Your task to perform on an android device: set the stopwatch Image 0: 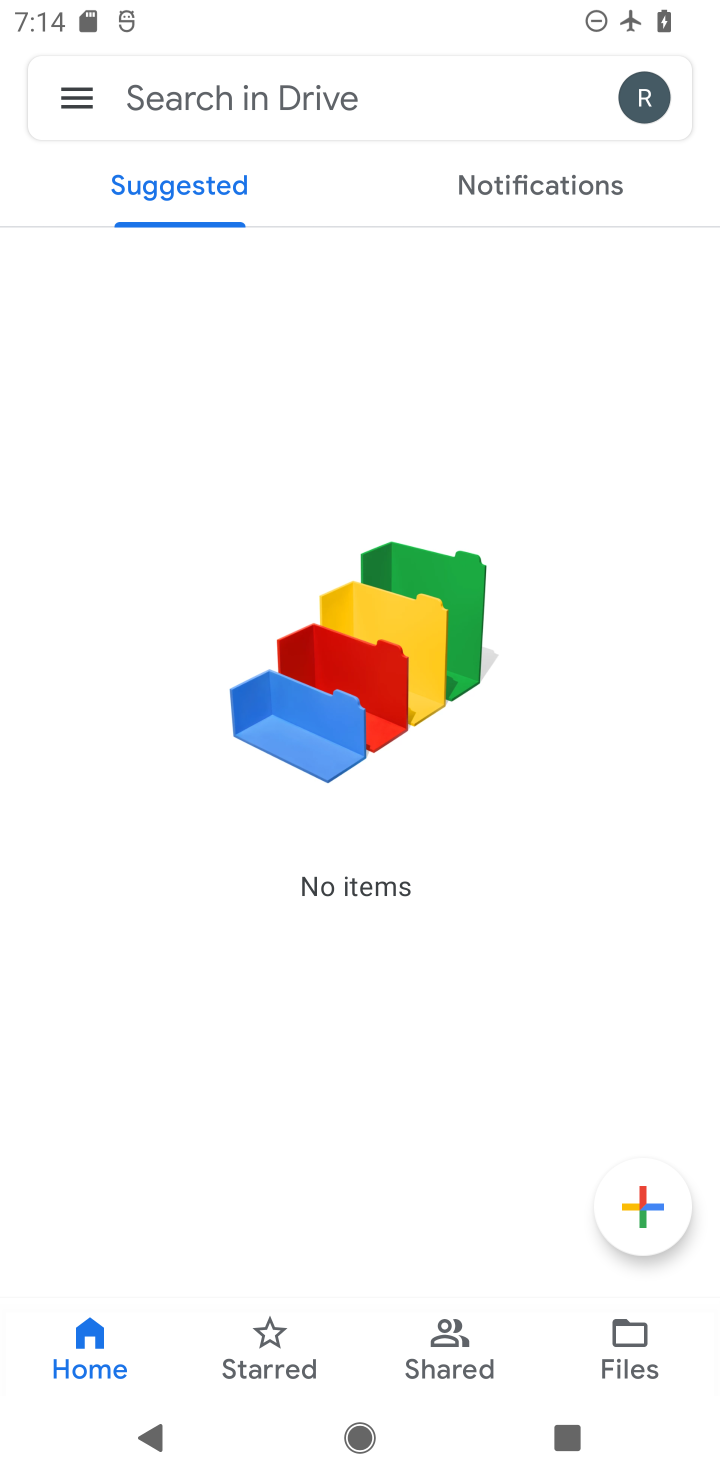
Step 0: press home button
Your task to perform on an android device: set the stopwatch Image 1: 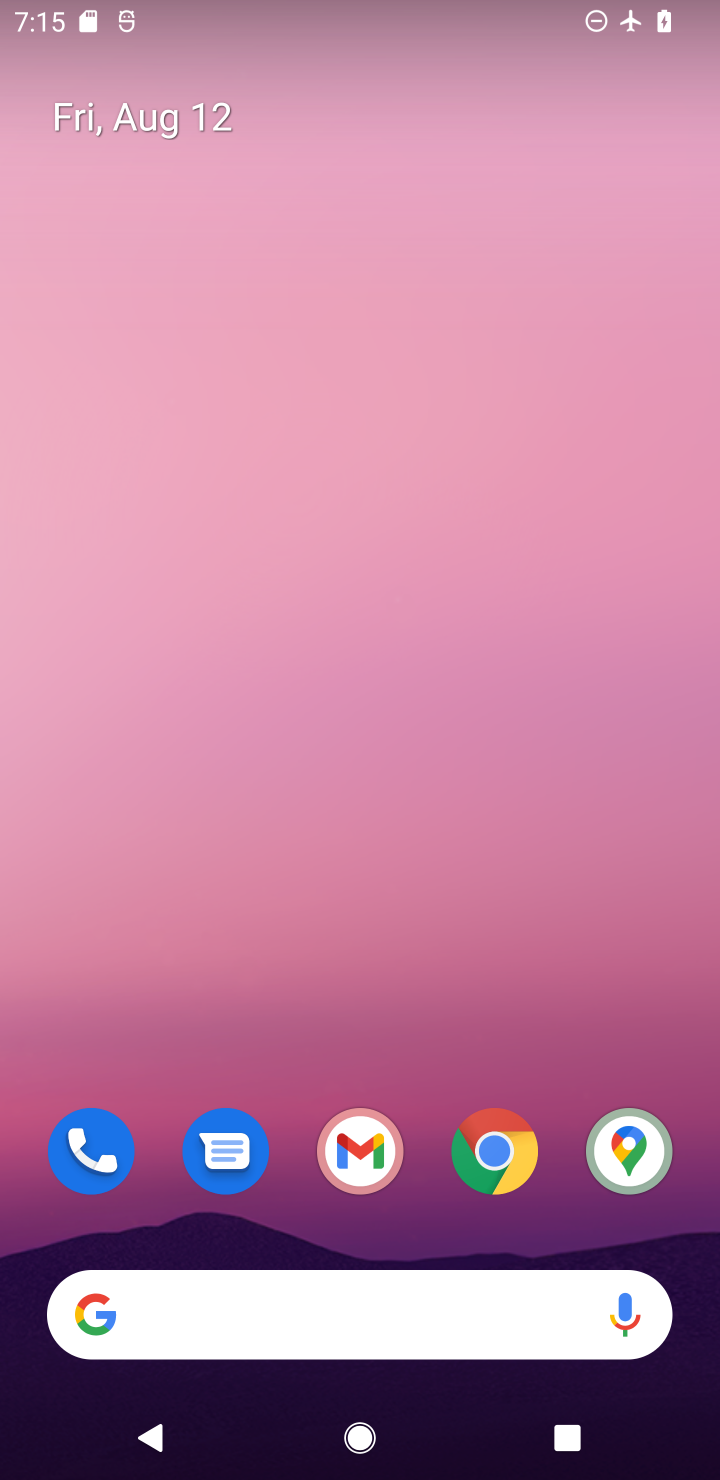
Step 1: drag from (499, 1009) to (479, 58)
Your task to perform on an android device: set the stopwatch Image 2: 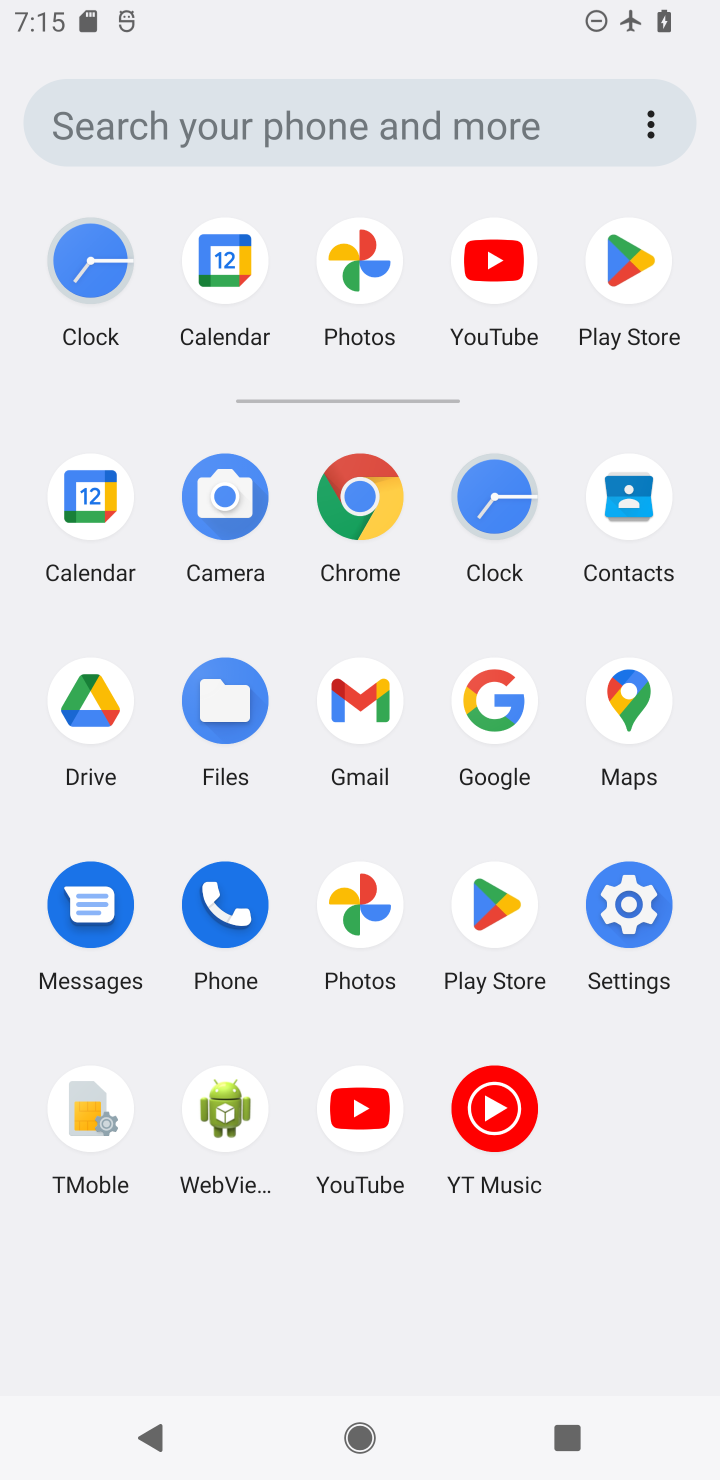
Step 2: click (508, 499)
Your task to perform on an android device: set the stopwatch Image 3: 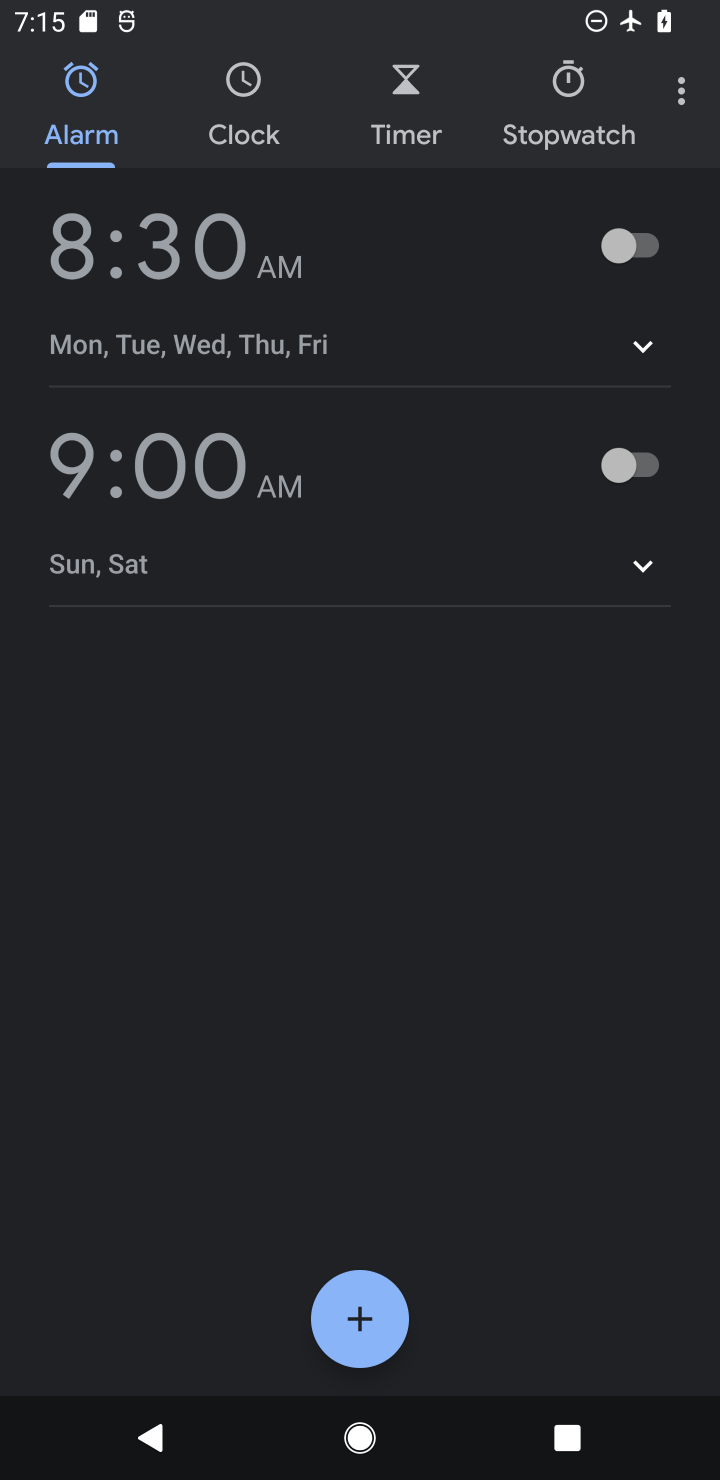
Step 3: click (552, 122)
Your task to perform on an android device: set the stopwatch Image 4: 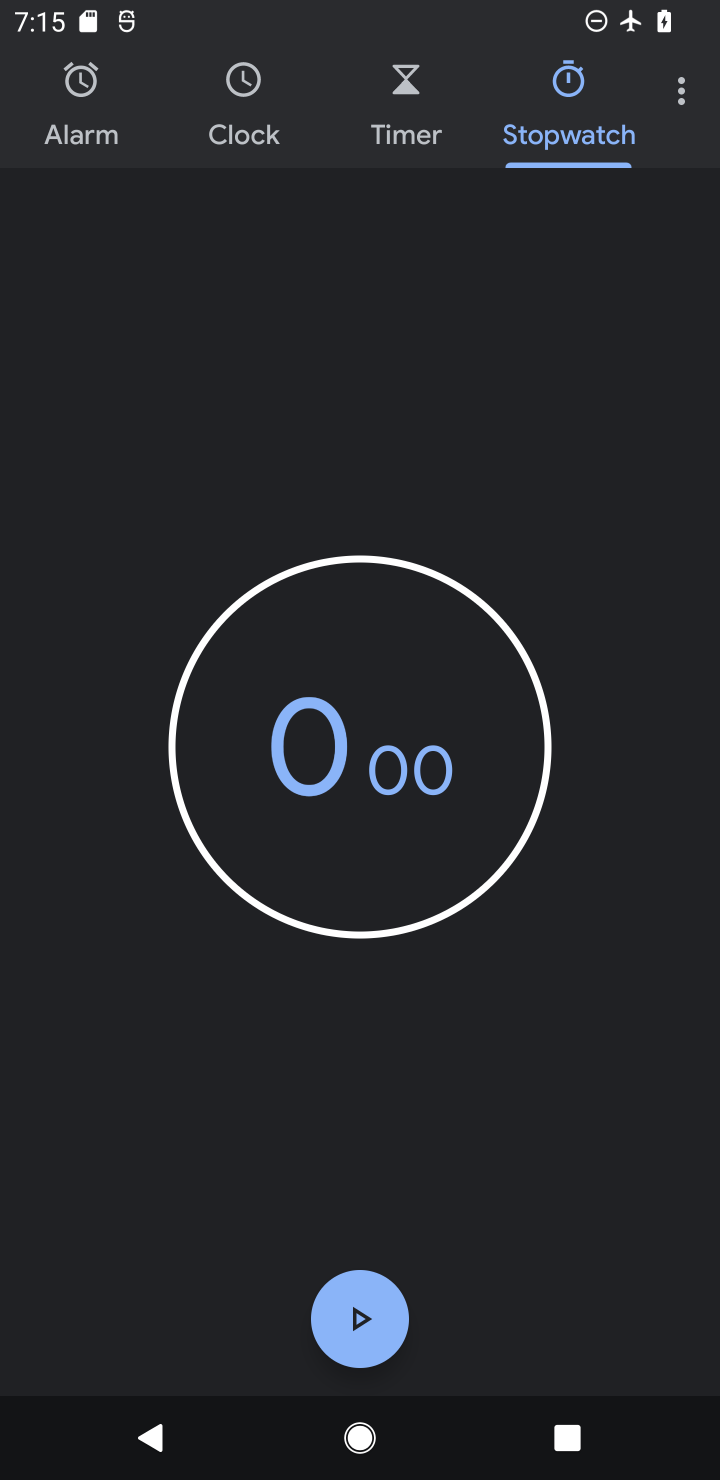
Step 4: click (374, 1356)
Your task to perform on an android device: set the stopwatch Image 5: 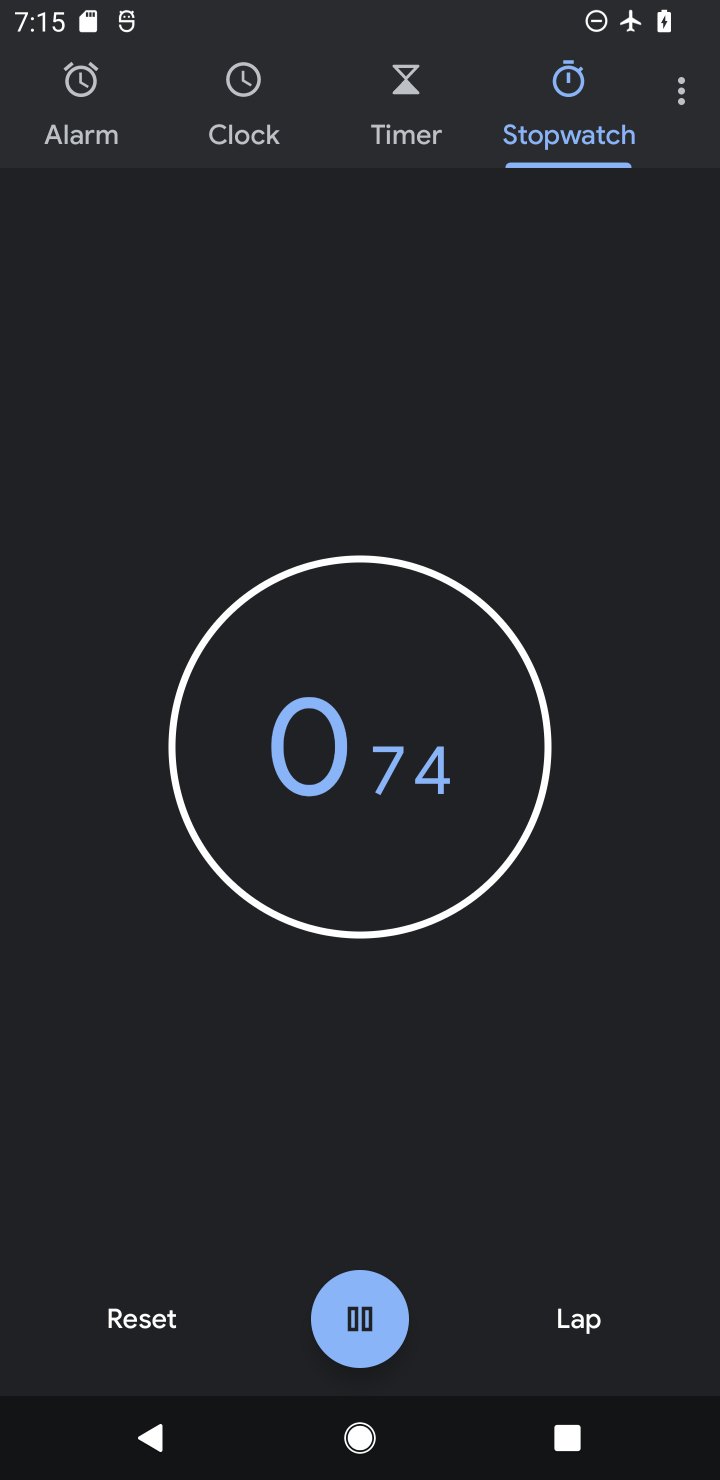
Step 5: click (374, 1331)
Your task to perform on an android device: set the stopwatch Image 6: 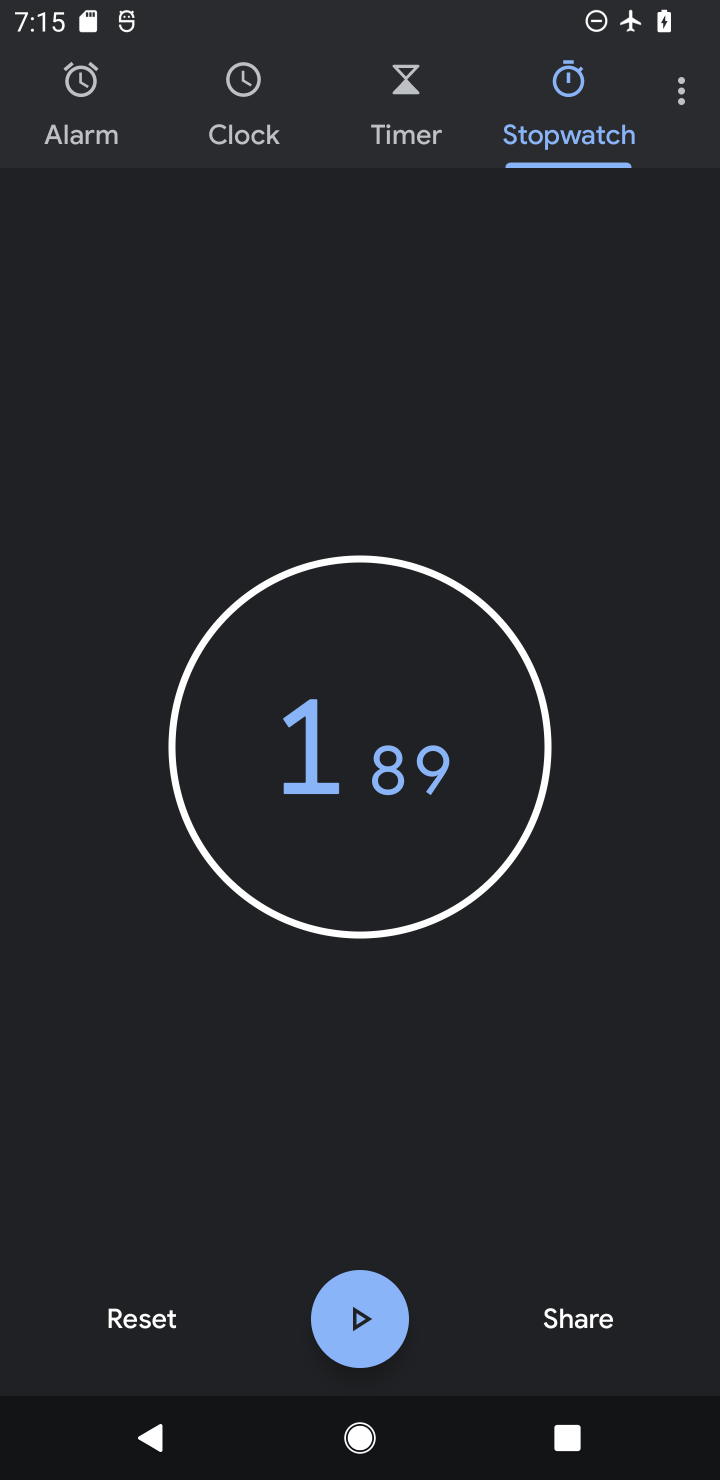
Step 6: task complete